Your task to perform on an android device: Go to sound settings Image 0: 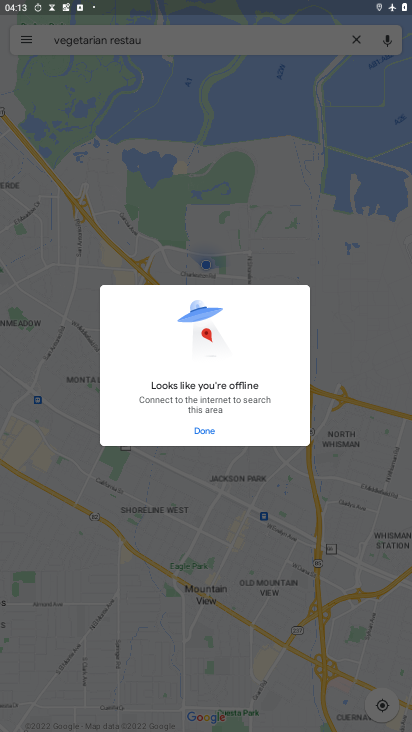
Step 0: press home button
Your task to perform on an android device: Go to sound settings Image 1: 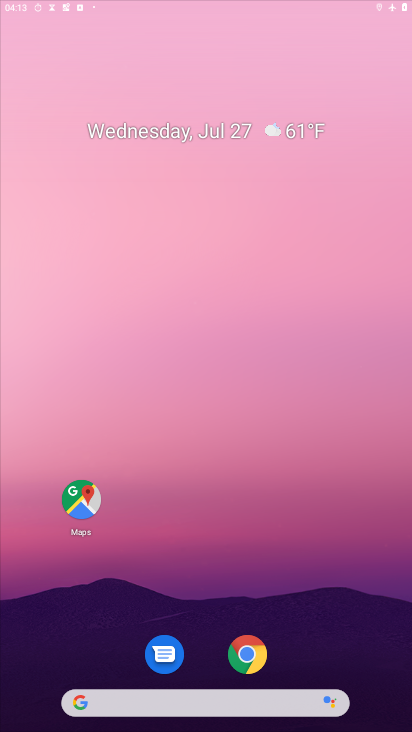
Step 1: drag from (272, 616) to (348, 5)
Your task to perform on an android device: Go to sound settings Image 2: 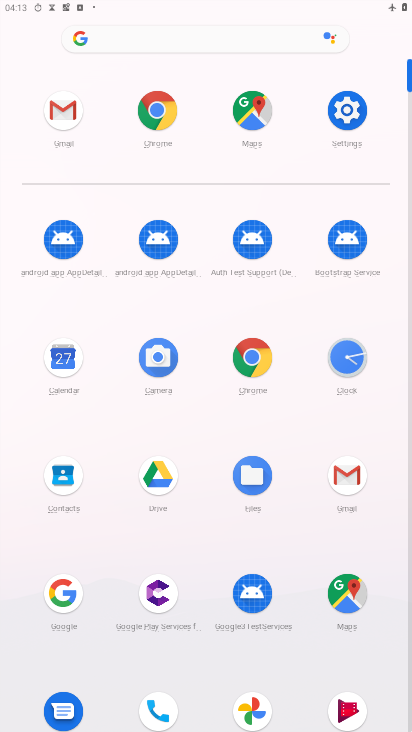
Step 2: click (358, 116)
Your task to perform on an android device: Go to sound settings Image 3: 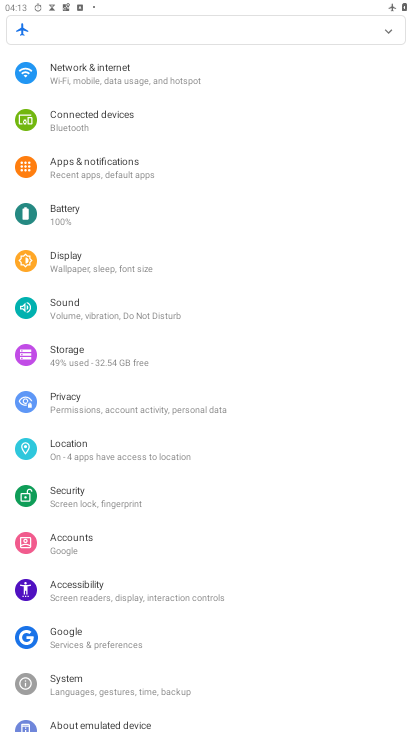
Step 3: click (71, 317)
Your task to perform on an android device: Go to sound settings Image 4: 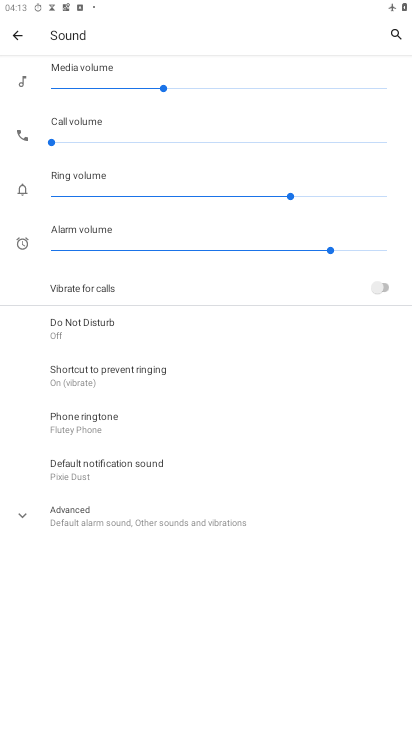
Step 4: task complete